Your task to perform on an android device: Go to sound settings Image 0: 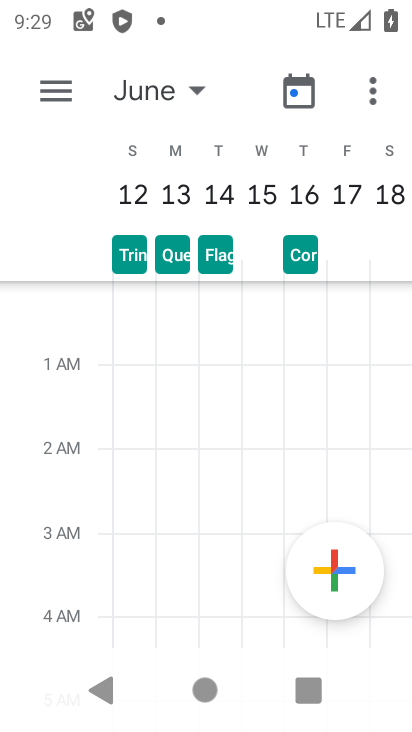
Step 0: press home button
Your task to perform on an android device: Go to sound settings Image 1: 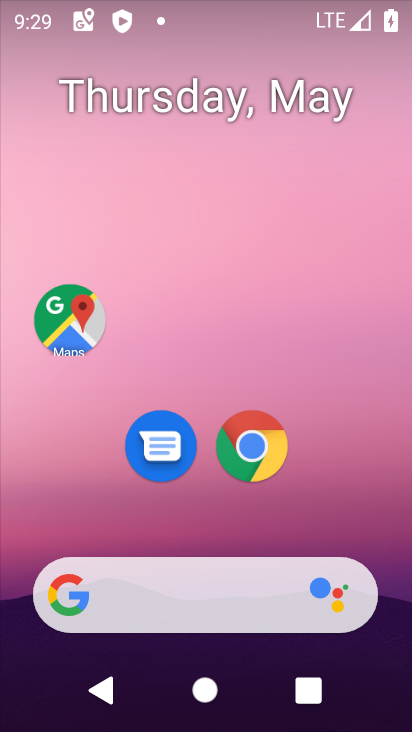
Step 1: drag from (379, 562) to (285, 92)
Your task to perform on an android device: Go to sound settings Image 2: 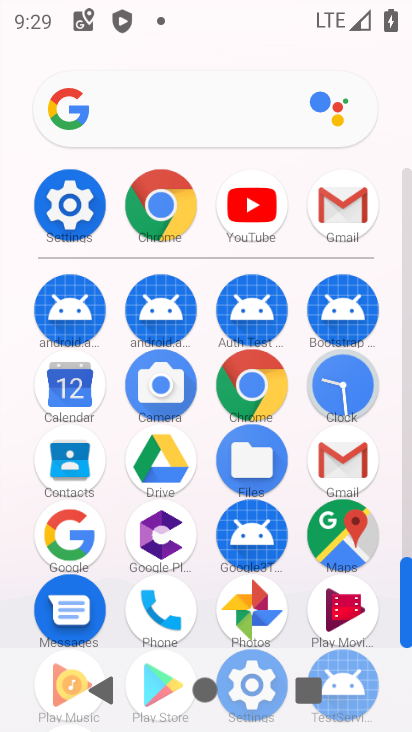
Step 2: click (406, 536)
Your task to perform on an android device: Go to sound settings Image 3: 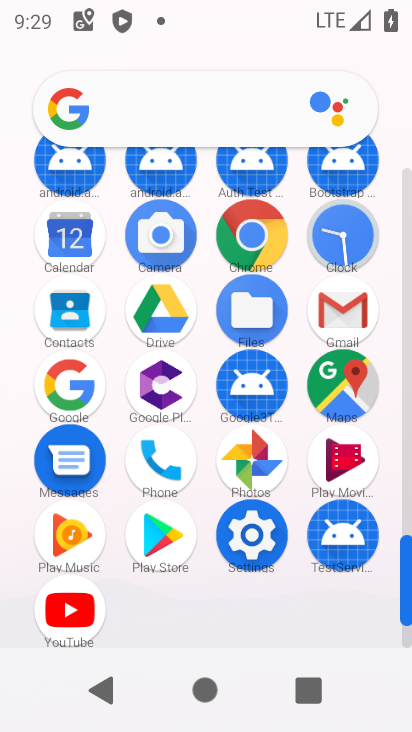
Step 3: click (252, 532)
Your task to perform on an android device: Go to sound settings Image 4: 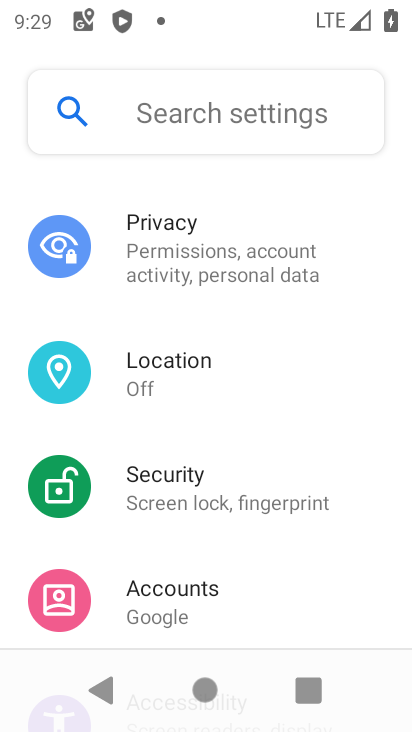
Step 4: drag from (299, 329) to (280, 594)
Your task to perform on an android device: Go to sound settings Image 5: 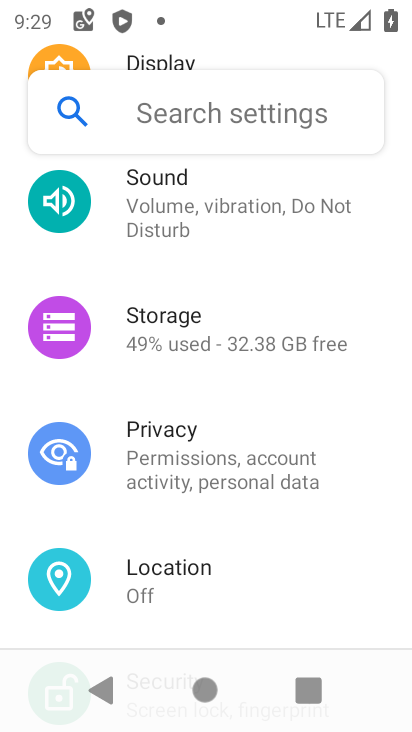
Step 5: click (161, 211)
Your task to perform on an android device: Go to sound settings Image 6: 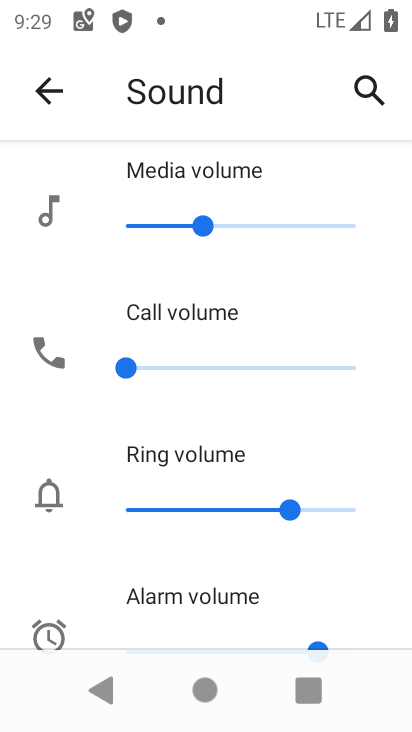
Step 6: task complete